Your task to perform on an android device: Search for "lg ultragear" on walmart.com, select the first entry, add it to the cart, then select checkout. Image 0: 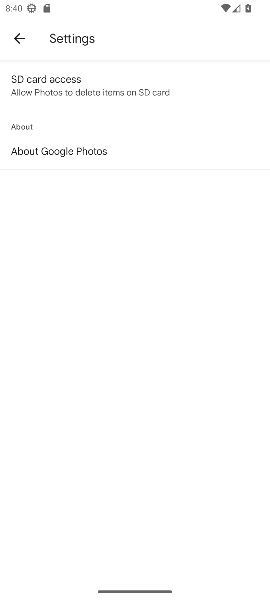
Step 0: press home button
Your task to perform on an android device: Search for "lg ultragear" on walmart.com, select the first entry, add it to the cart, then select checkout. Image 1: 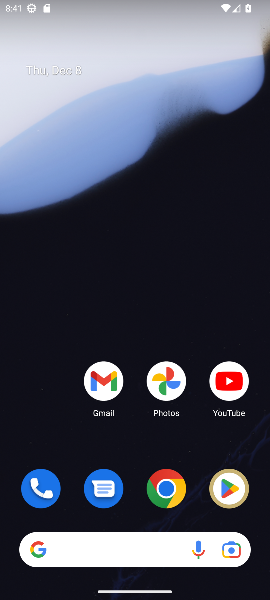
Step 1: drag from (139, 554) to (138, 291)
Your task to perform on an android device: Search for "lg ultragear" on walmart.com, select the first entry, add it to the cart, then select checkout. Image 2: 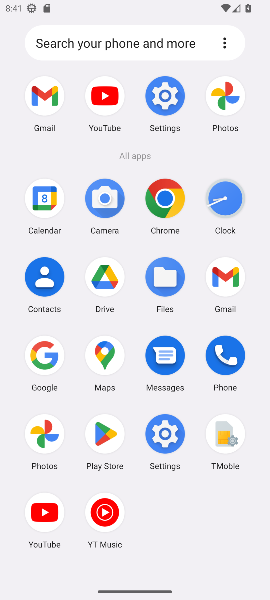
Step 2: click (43, 352)
Your task to perform on an android device: Search for "lg ultragear" on walmart.com, select the first entry, add it to the cart, then select checkout. Image 3: 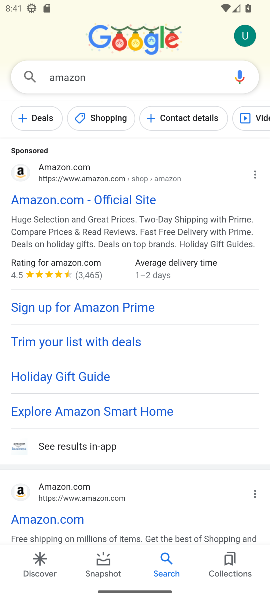
Step 3: click (86, 79)
Your task to perform on an android device: Search for "lg ultragear" on walmart.com, select the first entry, add it to the cart, then select checkout. Image 4: 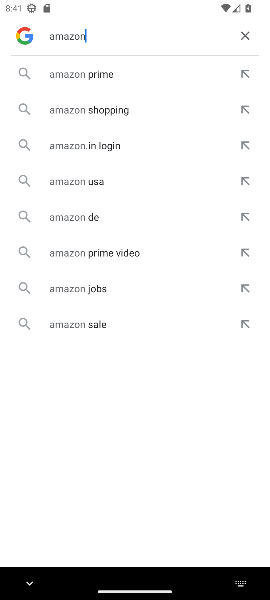
Step 4: click (247, 34)
Your task to perform on an android device: Search for "lg ultragear" on walmart.com, select the first entry, add it to the cart, then select checkout. Image 5: 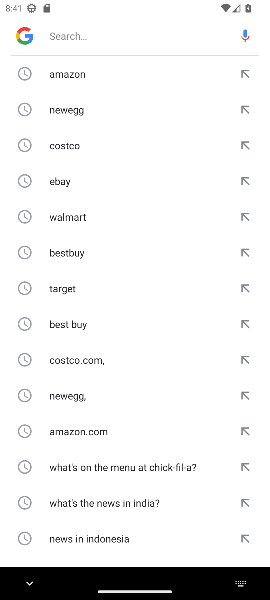
Step 5: click (63, 215)
Your task to perform on an android device: Search for "lg ultragear" on walmart.com, select the first entry, add it to the cart, then select checkout. Image 6: 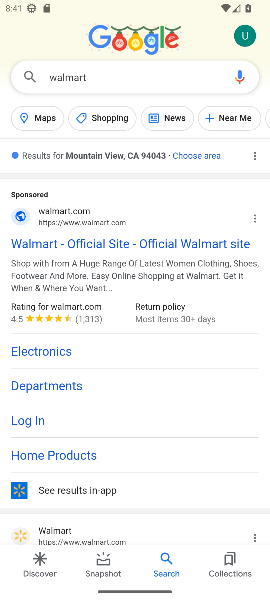
Step 6: click (64, 240)
Your task to perform on an android device: Search for "lg ultragear" on walmart.com, select the first entry, add it to the cart, then select checkout. Image 7: 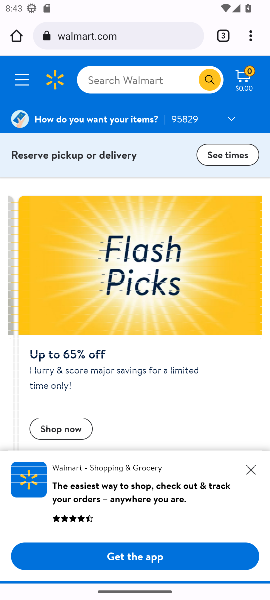
Step 7: click (130, 73)
Your task to perform on an android device: Search for "lg ultragear" on walmart.com, select the first entry, add it to the cart, then select checkout. Image 8: 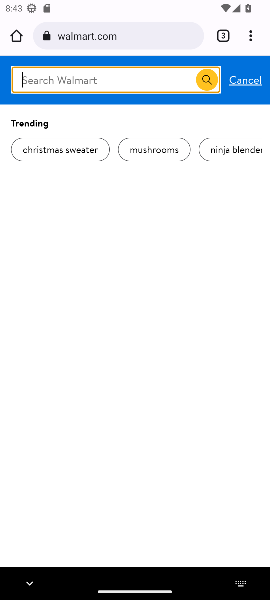
Step 8: type "lg ultragear"
Your task to perform on an android device: Search for "lg ultragear" on walmart.com, select the first entry, add it to the cart, then select checkout. Image 9: 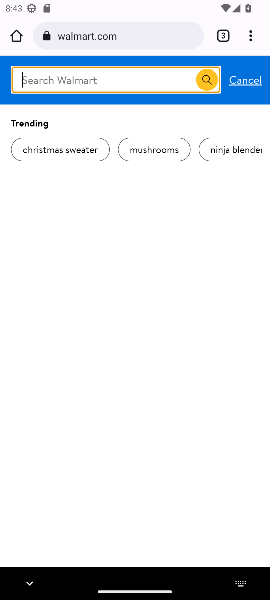
Step 9: click (208, 77)
Your task to perform on an android device: Search for "lg ultragear" on walmart.com, select the first entry, add it to the cart, then select checkout. Image 10: 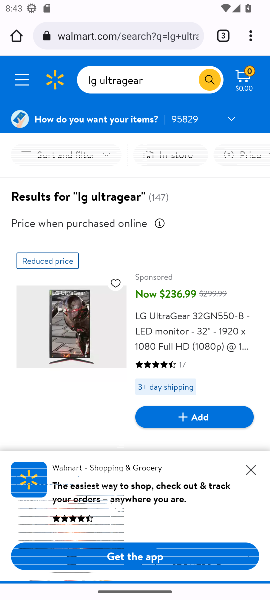
Step 10: click (93, 407)
Your task to perform on an android device: Search for "lg ultragear" on walmart.com, select the first entry, add it to the cart, then select checkout. Image 11: 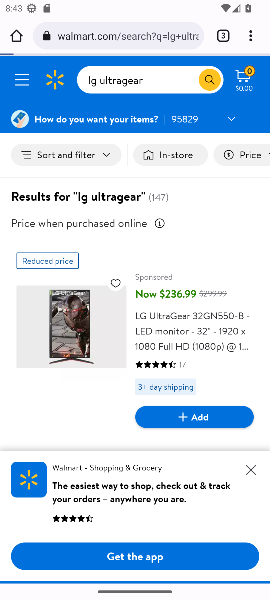
Step 11: click (198, 418)
Your task to perform on an android device: Search for "lg ultragear" on walmart.com, select the first entry, add it to the cart, then select checkout. Image 12: 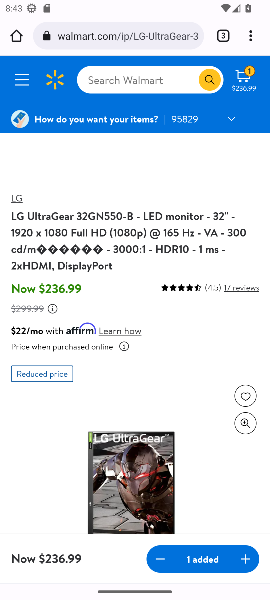
Step 12: click (241, 76)
Your task to perform on an android device: Search for "lg ultragear" on walmart.com, select the first entry, add it to the cart, then select checkout. Image 13: 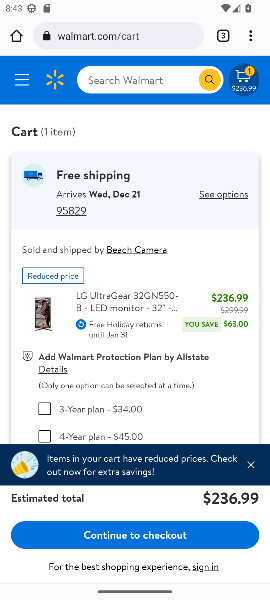
Step 13: click (118, 533)
Your task to perform on an android device: Search for "lg ultragear" on walmart.com, select the first entry, add it to the cart, then select checkout. Image 14: 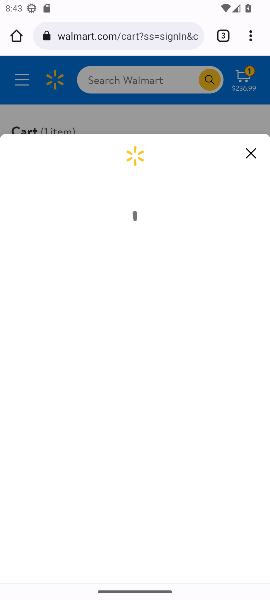
Step 14: task complete